Your task to perform on an android device: Is it going to rain this weekend? Image 0: 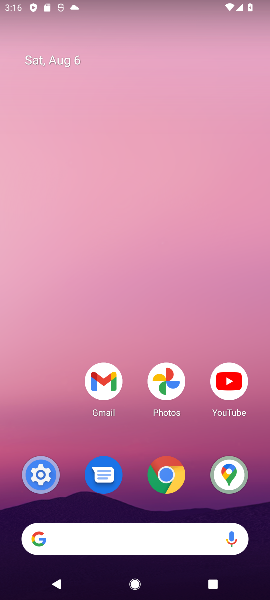
Step 0: click (86, 540)
Your task to perform on an android device: Is it going to rain this weekend? Image 1: 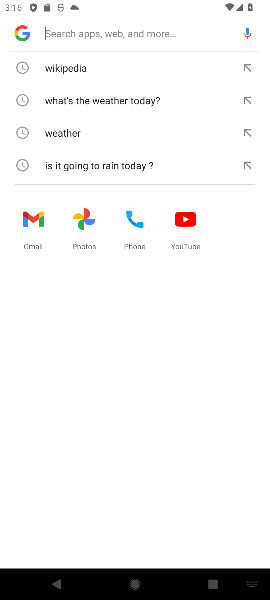
Step 1: type "s it going to rain this weekend?"
Your task to perform on an android device: Is it going to rain this weekend? Image 2: 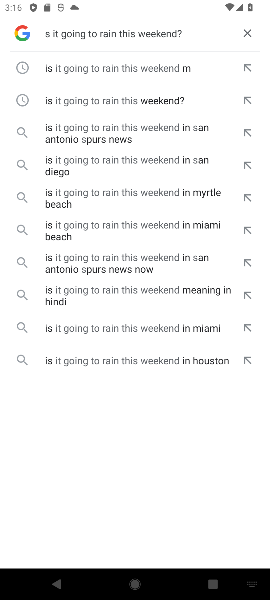
Step 2: click (67, 65)
Your task to perform on an android device: Is it going to rain this weekend? Image 3: 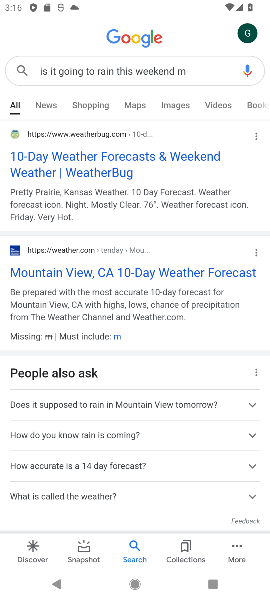
Step 3: task complete